Your task to perform on an android device: Open Yahoo.com Image 0: 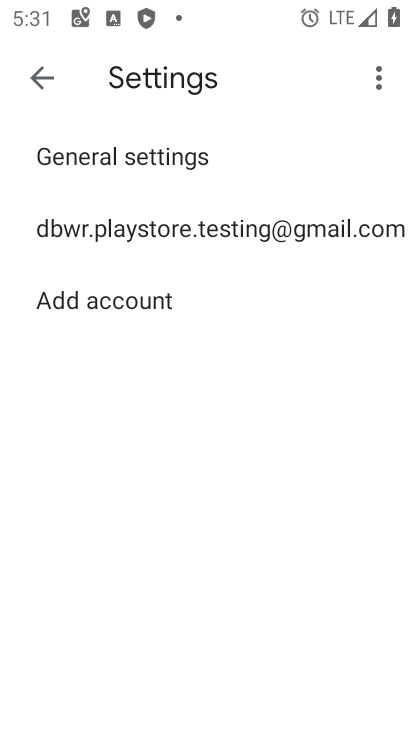
Step 0: press home button
Your task to perform on an android device: Open Yahoo.com Image 1: 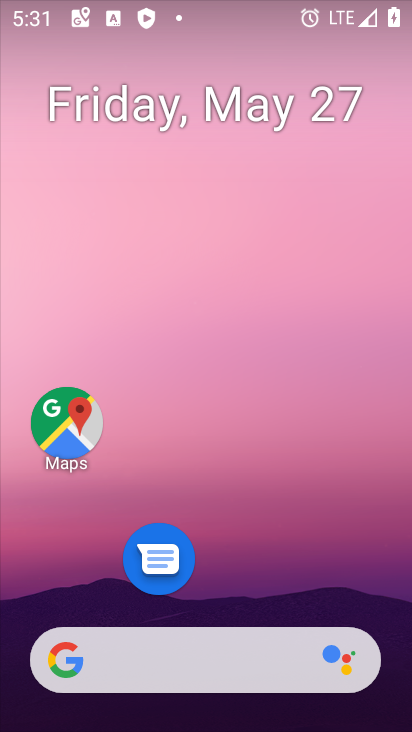
Step 1: drag from (161, 591) to (341, 5)
Your task to perform on an android device: Open Yahoo.com Image 2: 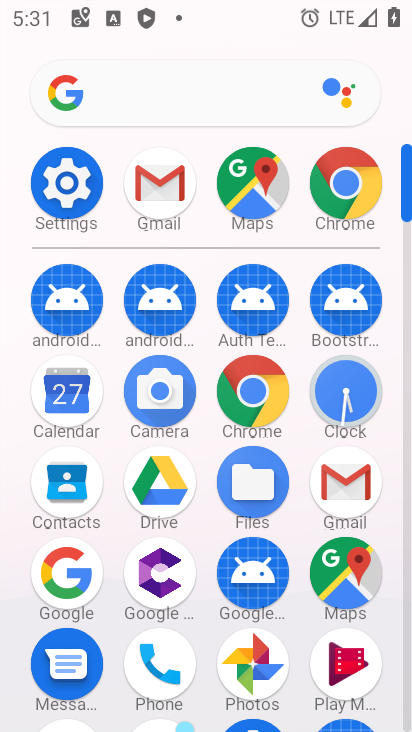
Step 2: click (233, 373)
Your task to perform on an android device: Open Yahoo.com Image 3: 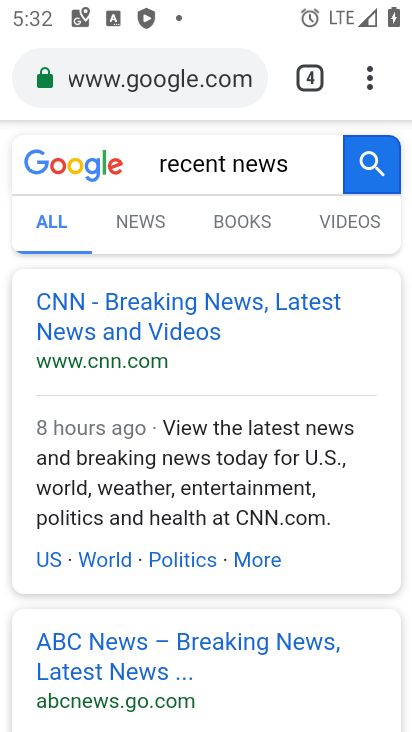
Step 3: click (223, 85)
Your task to perform on an android device: Open Yahoo.com Image 4: 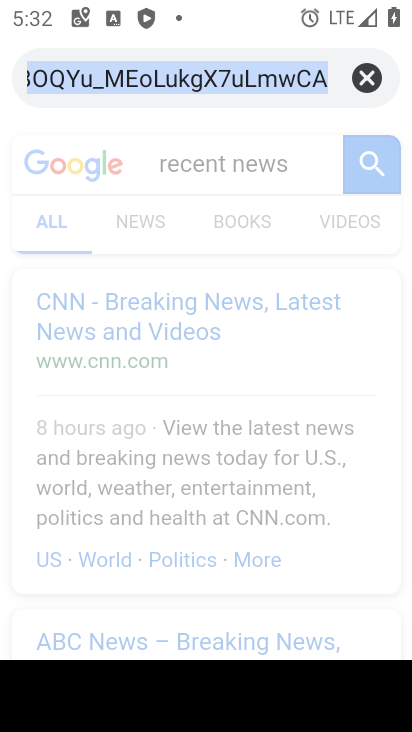
Step 4: type "yahoo.com"
Your task to perform on an android device: Open Yahoo.com Image 5: 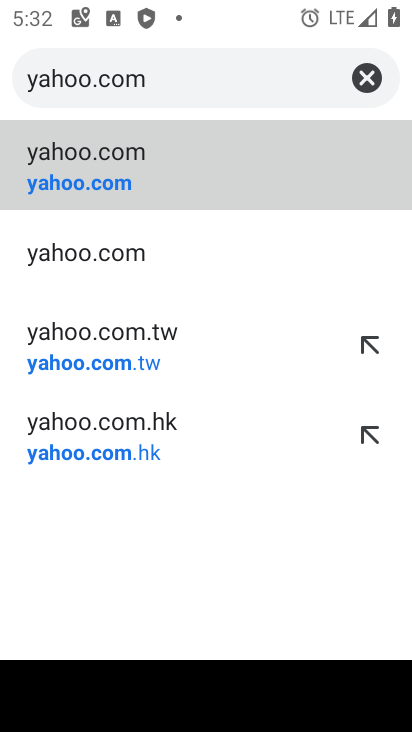
Step 5: click (189, 156)
Your task to perform on an android device: Open Yahoo.com Image 6: 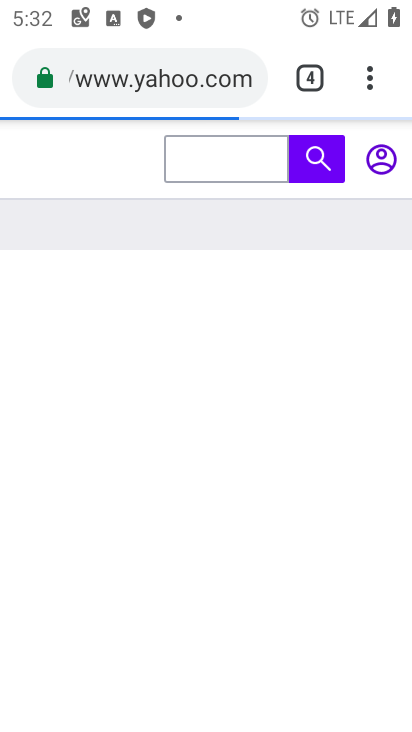
Step 6: task complete